Your task to perform on an android device: turn off sleep mode Image 0: 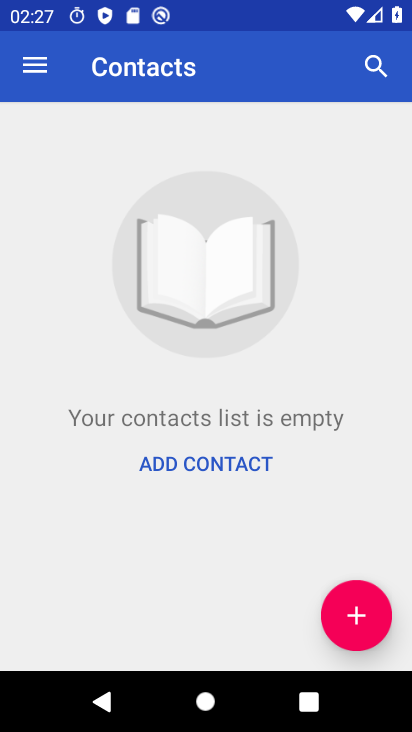
Step 0: press home button
Your task to perform on an android device: turn off sleep mode Image 1: 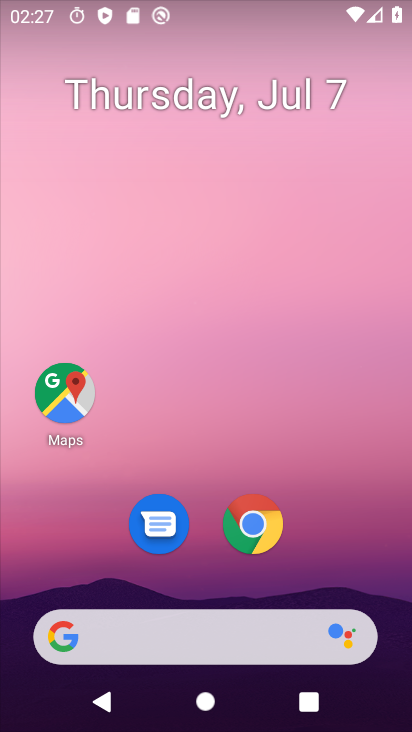
Step 1: drag from (240, 437) to (242, 1)
Your task to perform on an android device: turn off sleep mode Image 2: 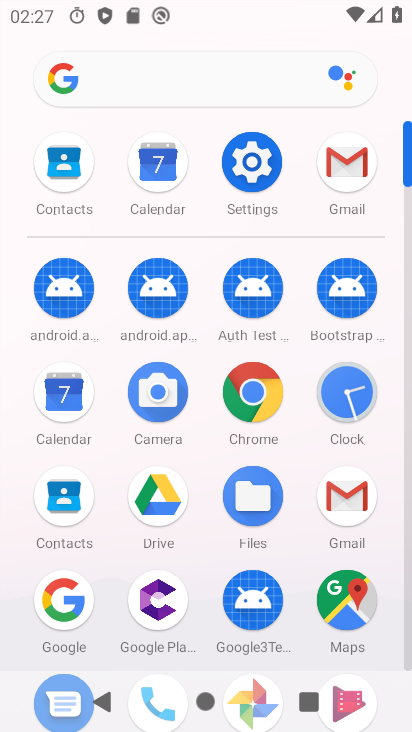
Step 2: click (252, 166)
Your task to perform on an android device: turn off sleep mode Image 3: 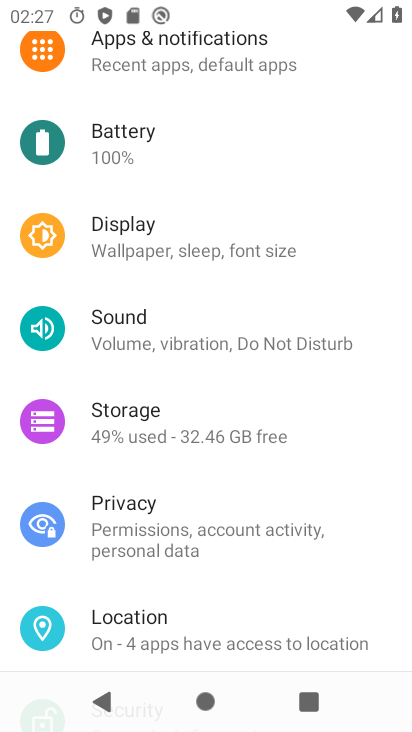
Step 3: click (229, 240)
Your task to perform on an android device: turn off sleep mode Image 4: 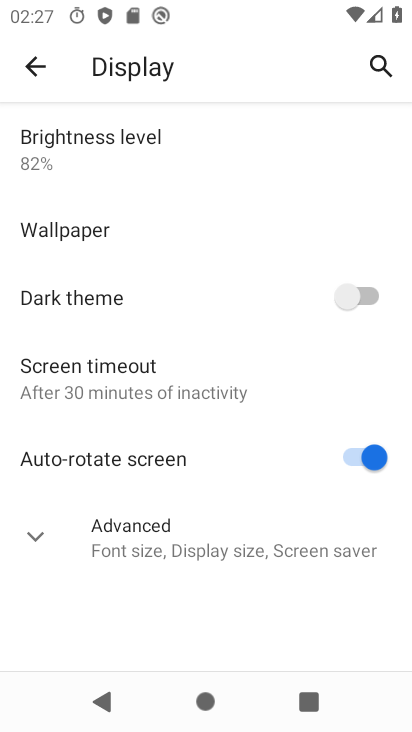
Step 4: click (30, 531)
Your task to perform on an android device: turn off sleep mode Image 5: 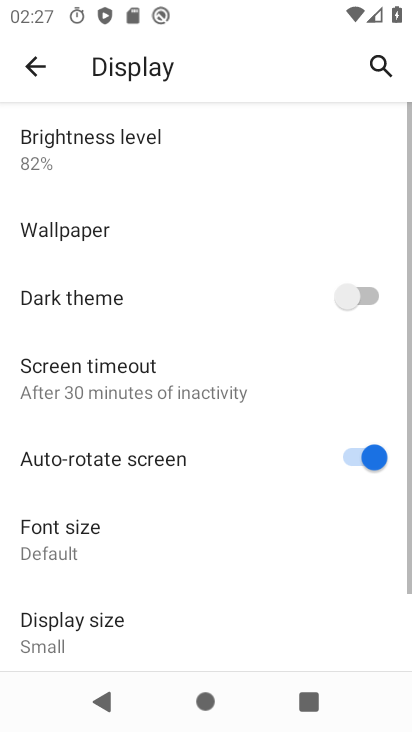
Step 5: task complete